Your task to perform on an android device: check the backup settings in the google photos Image 0: 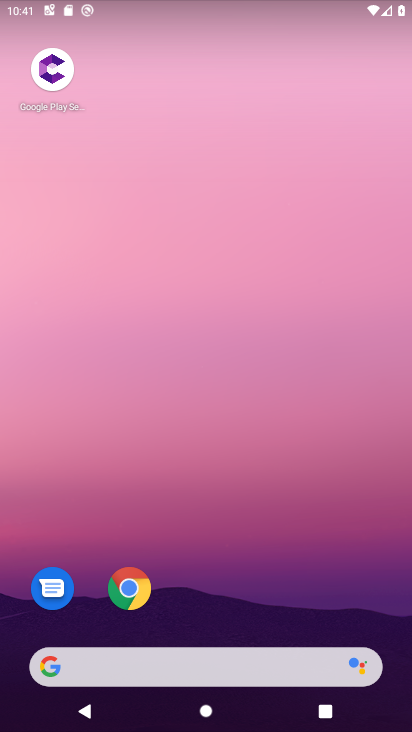
Step 0: drag from (302, 418) to (289, 13)
Your task to perform on an android device: check the backup settings in the google photos Image 1: 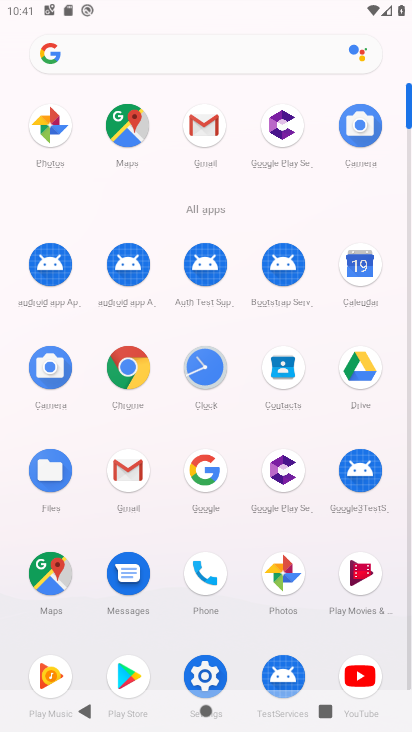
Step 1: click (287, 573)
Your task to perform on an android device: check the backup settings in the google photos Image 2: 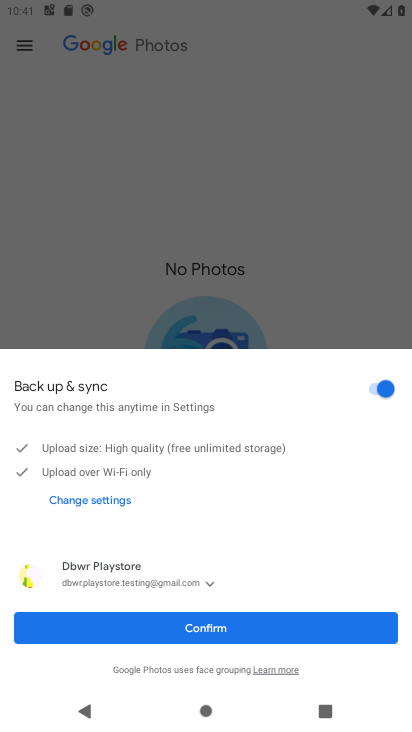
Step 2: press home button
Your task to perform on an android device: check the backup settings in the google photos Image 3: 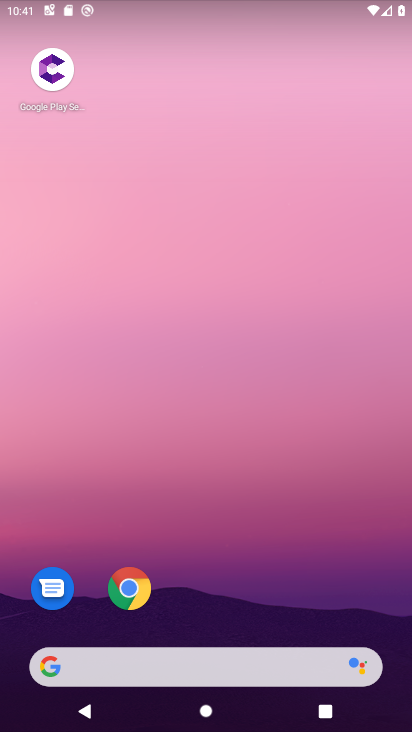
Step 3: drag from (254, 575) to (259, 16)
Your task to perform on an android device: check the backup settings in the google photos Image 4: 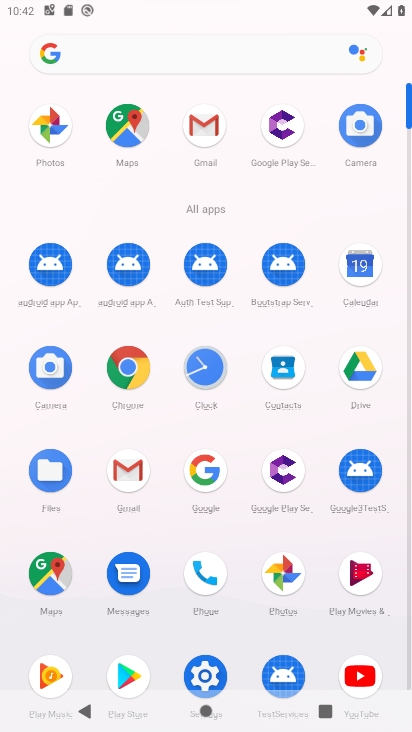
Step 4: click (283, 570)
Your task to perform on an android device: check the backup settings in the google photos Image 5: 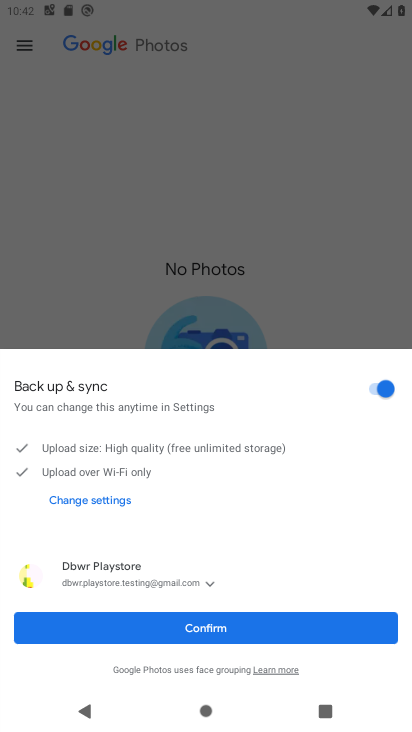
Step 5: click (312, 626)
Your task to perform on an android device: check the backup settings in the google photos Image 6: 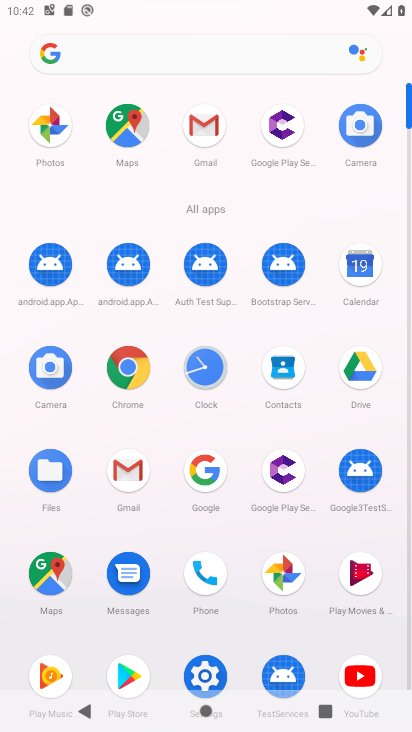
Step 6: click (282, 574)
Your task to perform on an android device: check the backup settings in the google photos Image 7: 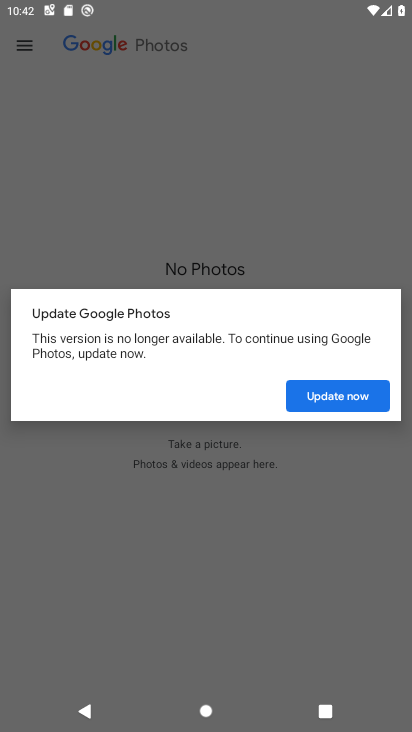
Step 7: click (334, 386)
Your task to perform on an android device: check the backup settings in the google photos Image 8: 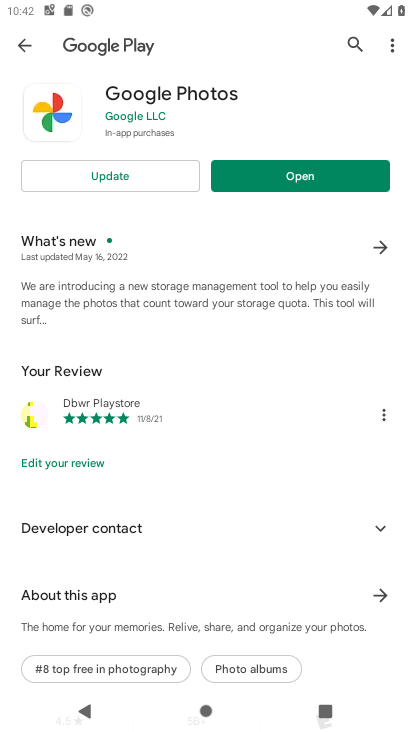
Step 8: click (160, 175)
Your task to perform on an android device: check the backup settings in the google photos Image 9: 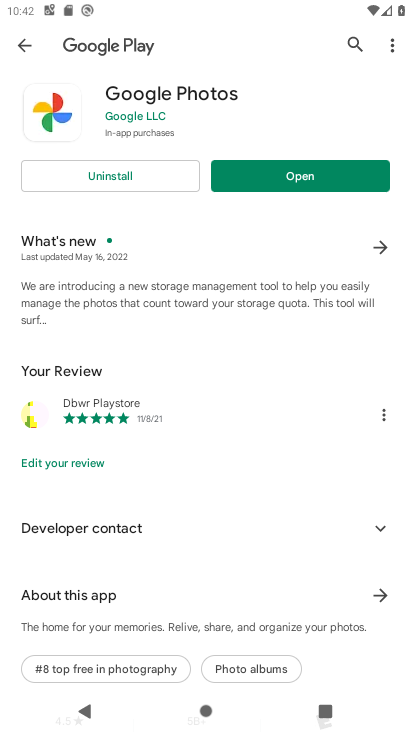
Step 9: click (288, 181)
Your task to perform on an android device: check the backup settings in the google photos Image 10: 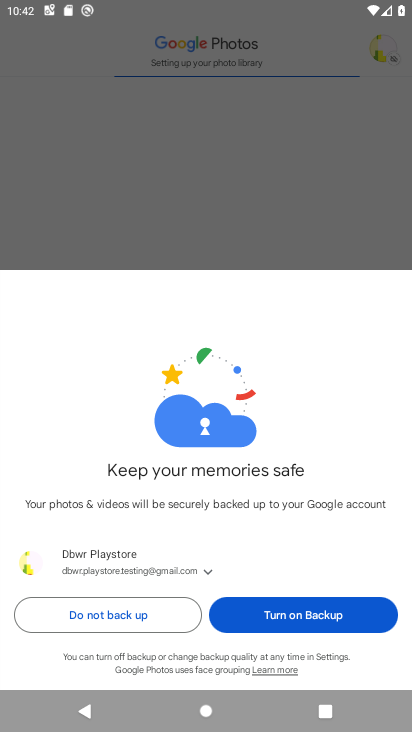
Step 10: click (135, 615)
Your task to perform on an android device: check the backup settings in the google photos Image 11: 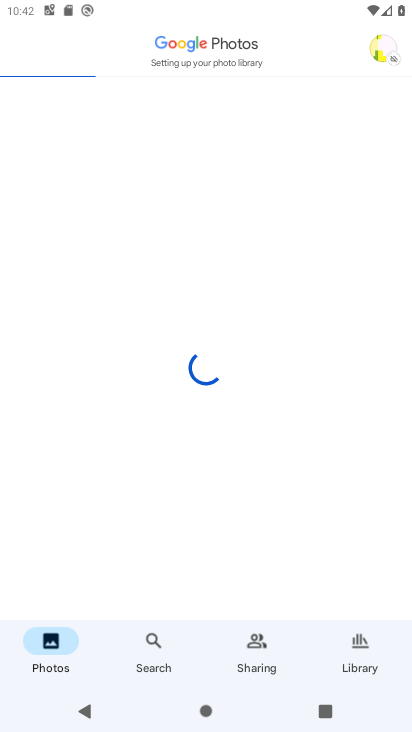
Step 11: click (385, 42)
Your task to perform on an android device: check the backup settings in the google photos Image 12: 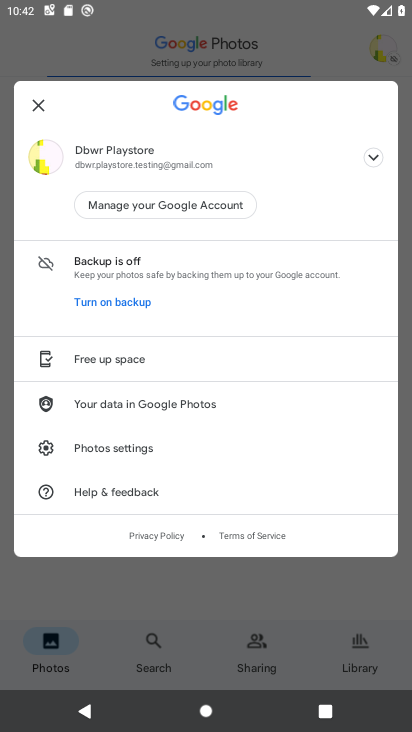
Step 12: click (204, 453)
Your task to perform on an android device: check the backup settings in the google photos Image 13: 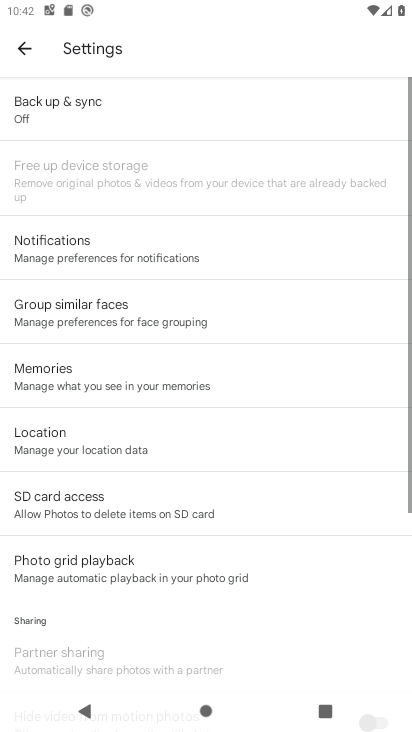
Step 13: click (148, 101)
Your task to perform on an android device: check the backup settings in the google photos Image 14: 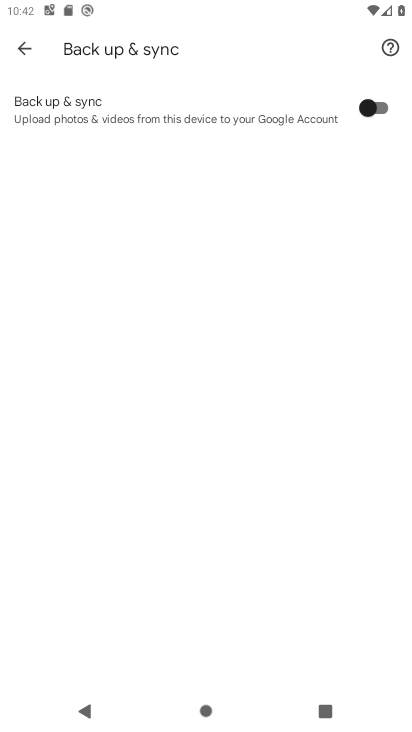
Step 14: task complete